Your task to perform on an android device: Clear the shopping cart on costco. Add "lenovo thinkpad" to the cart on costco Image 0: 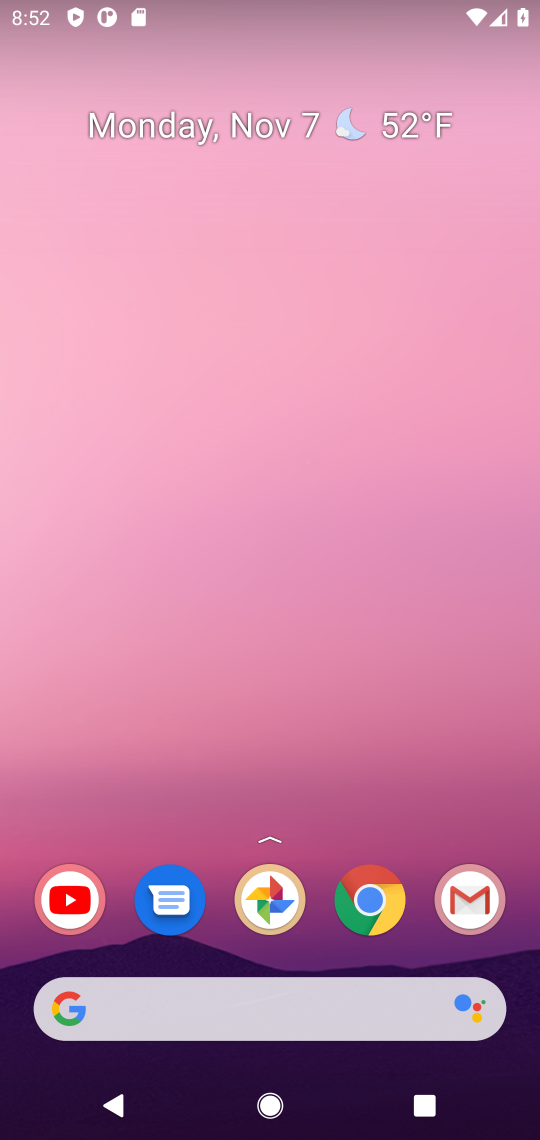
Step 0: click (281, 1033)
Your task to perform on an android device: Clear the shopping cart on costco. Add "lenovo thinkpad" to the cart on costco Image 1: 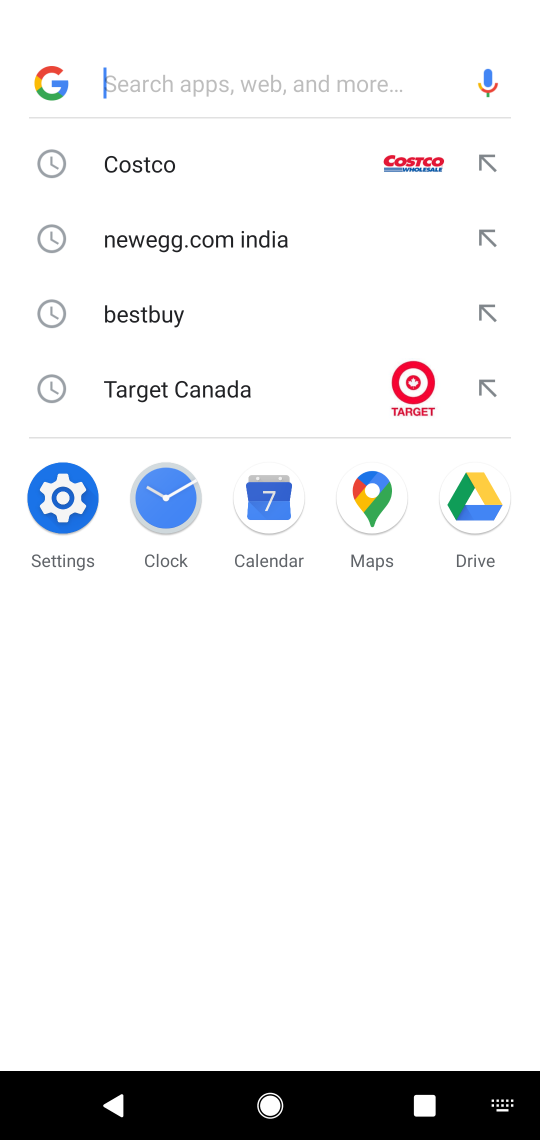
Step 1: click (163, 164)
Your task to perform on an android device: Clear the shopping cart on costco. Add "lenovo thinkpad" to the cart on costco Image 2: 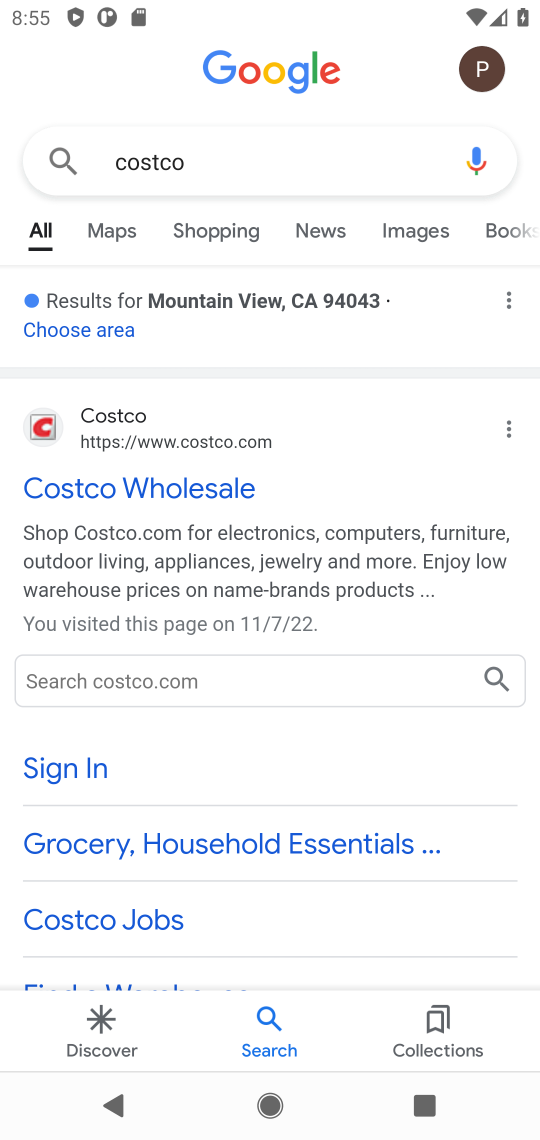
Step 2: click (143, 492)
Your task to perform on an android device: Clear the shopping cart on costco. Add "lenovo thinkpad" to the cart on costco Image 3: 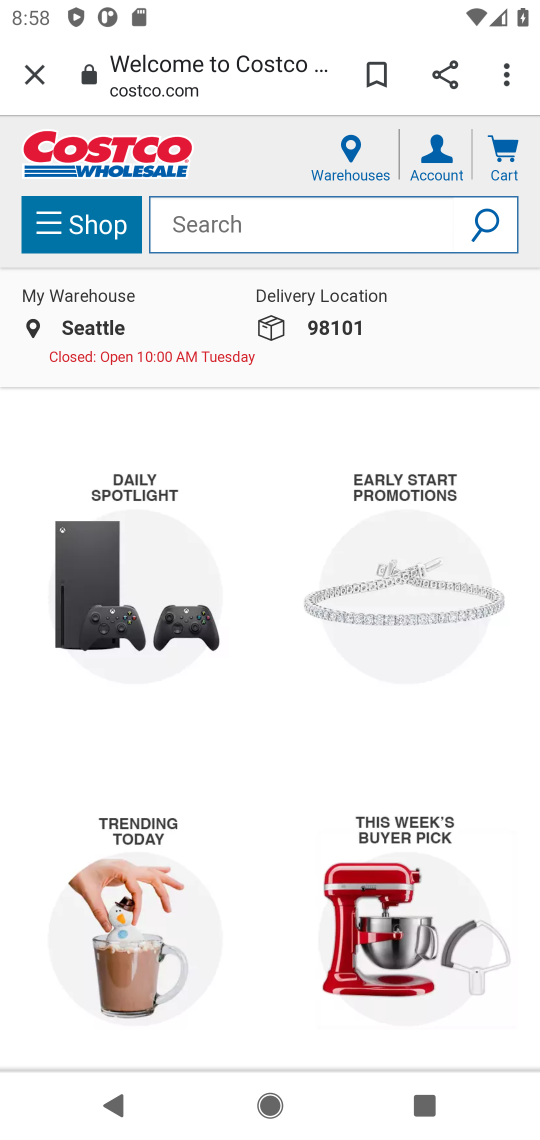
Step 3: task complete